Your task to perform on an android device: set default search engine in the chrome app Image 0: 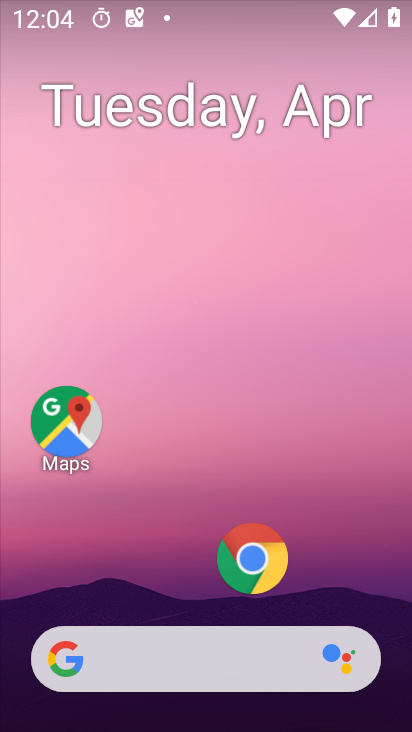
Step 0: drag from (169, 593) to (219, 110)
Your task to perform on an android device: set default search engine in the chrome app Image 1: 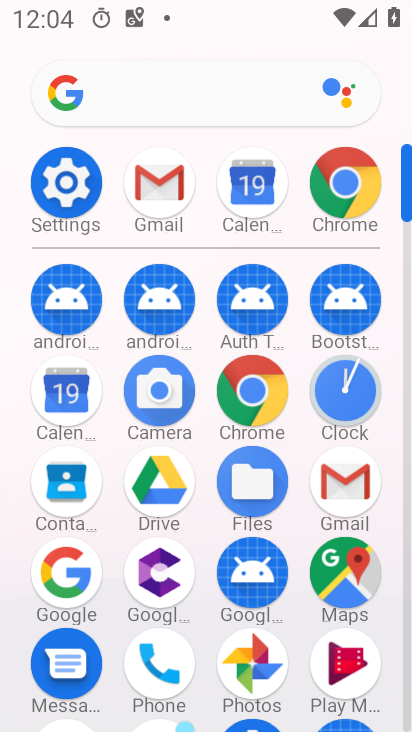
Step 1: click (344, 188)
Your task to perform on an android device: set default search engine in the chrome app Image 2: 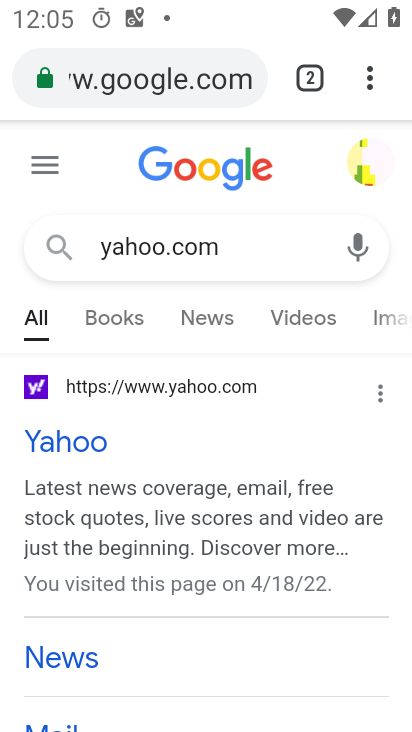
Step 2: click (365, 70)
Your task to perform on an android device: set default search engine in the chrome app Image 3: 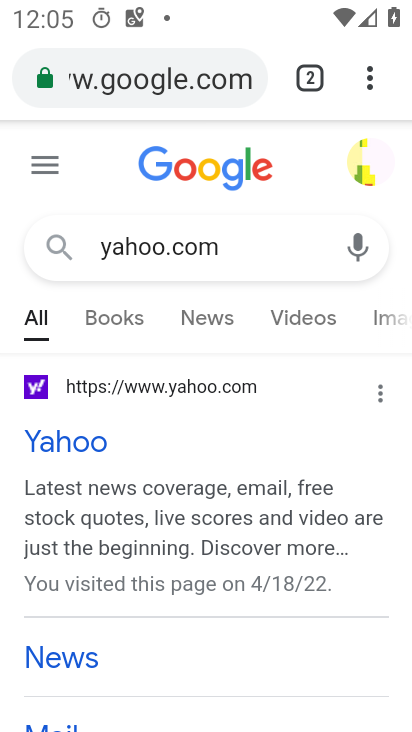
Step 3: click (373, 83)
Your task to perform on an android device: set default search engine in the chrome app Image 4: 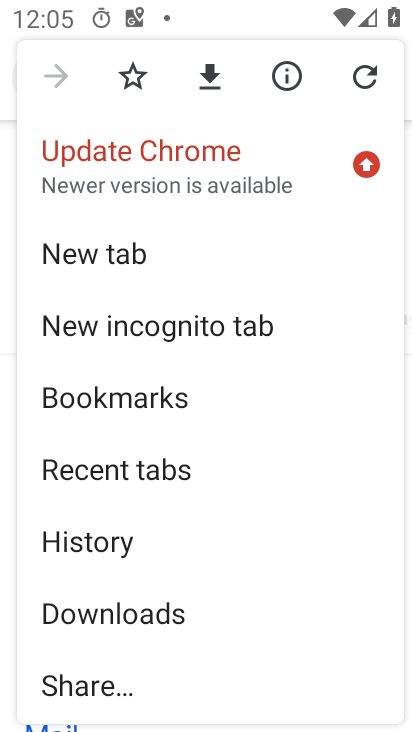
Step 4: drag from (87, 546) to (106, 160)
Your task to perform on an android device: set default search engine in the chrome app Image 5: 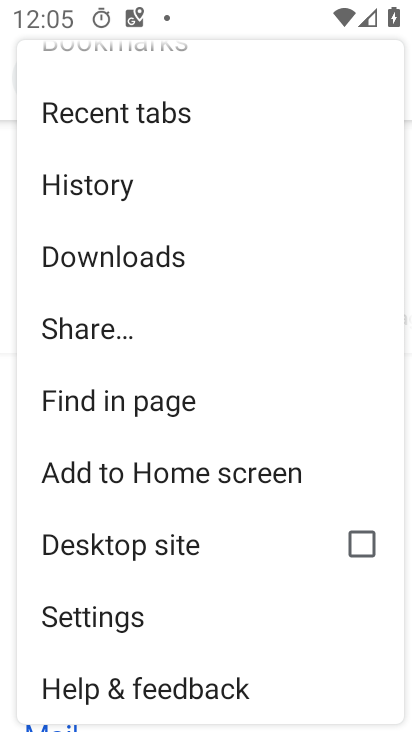
Step 5: click (90, 623)
Your task to perform on an android device: set default search engine in the chrome app Image 6: 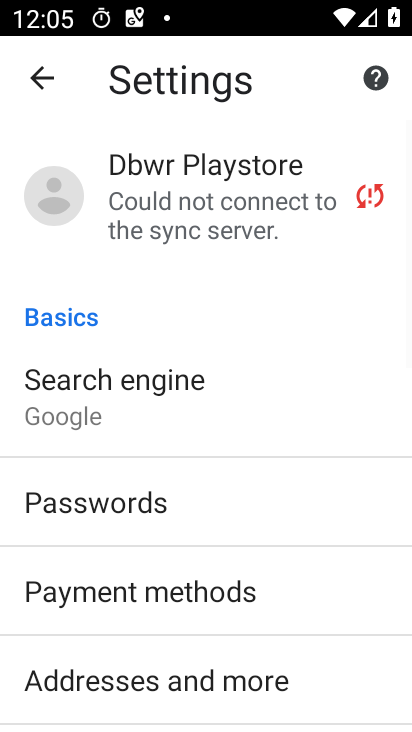
Step 6: click (105, 378)
Your task to perform on an android device: set default search engine in the chrome app Image 7: 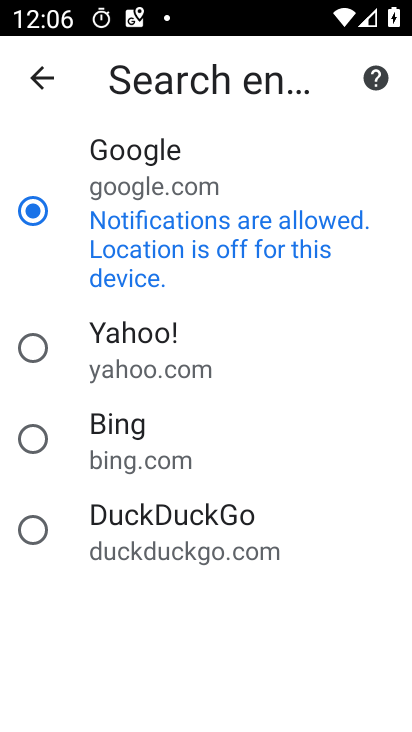
Step 7: click (27, 341)
Your task to perform on an android device: set default search engine in the chrome app Image 8: 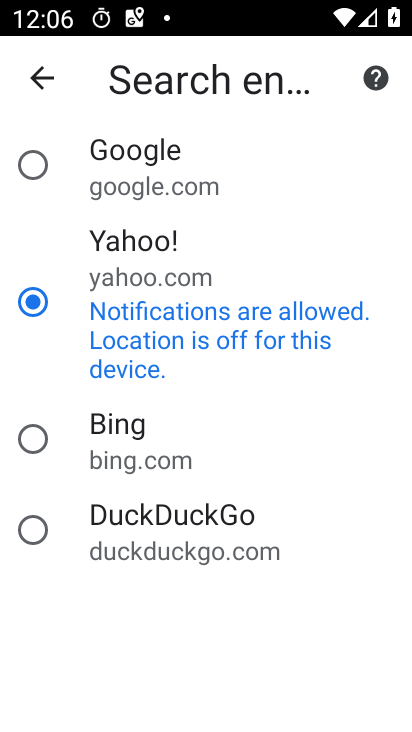
Step 8: click (34, 168)
Your task to perform on an android device: set default search engine in the chrome app Image 9: 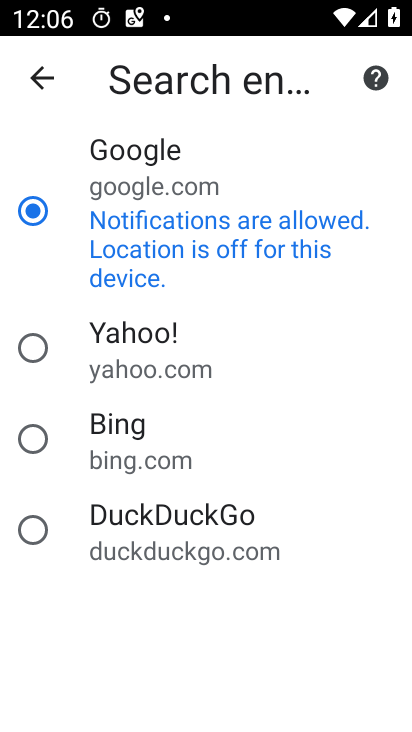
Step 9: task complete